Your task to perform on an android device: open app "Skype" (install if not already installed), go to login, and select forgot password Image 0: 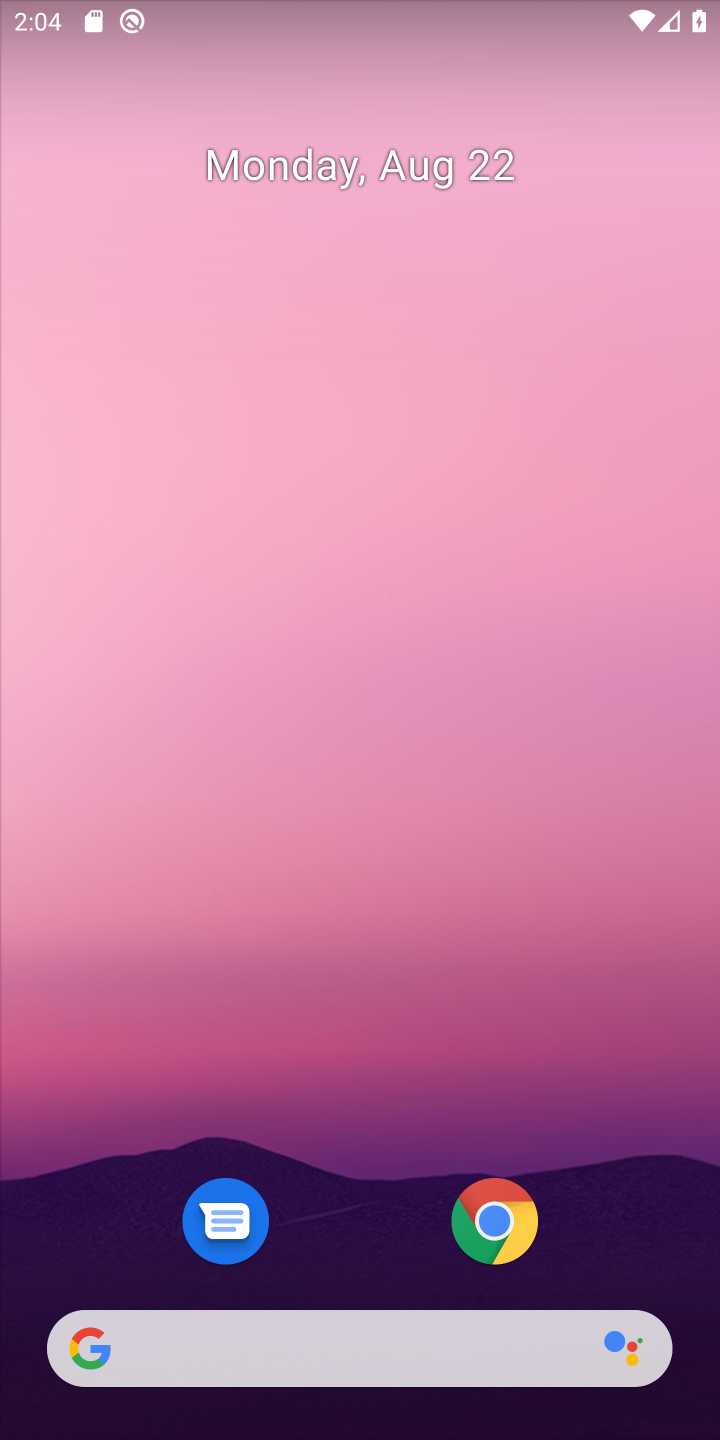
Step 0: press home button
Your task to perform on an android device: open app "Skype" (install if not already installed), go to login, and select forgot password Image 1: 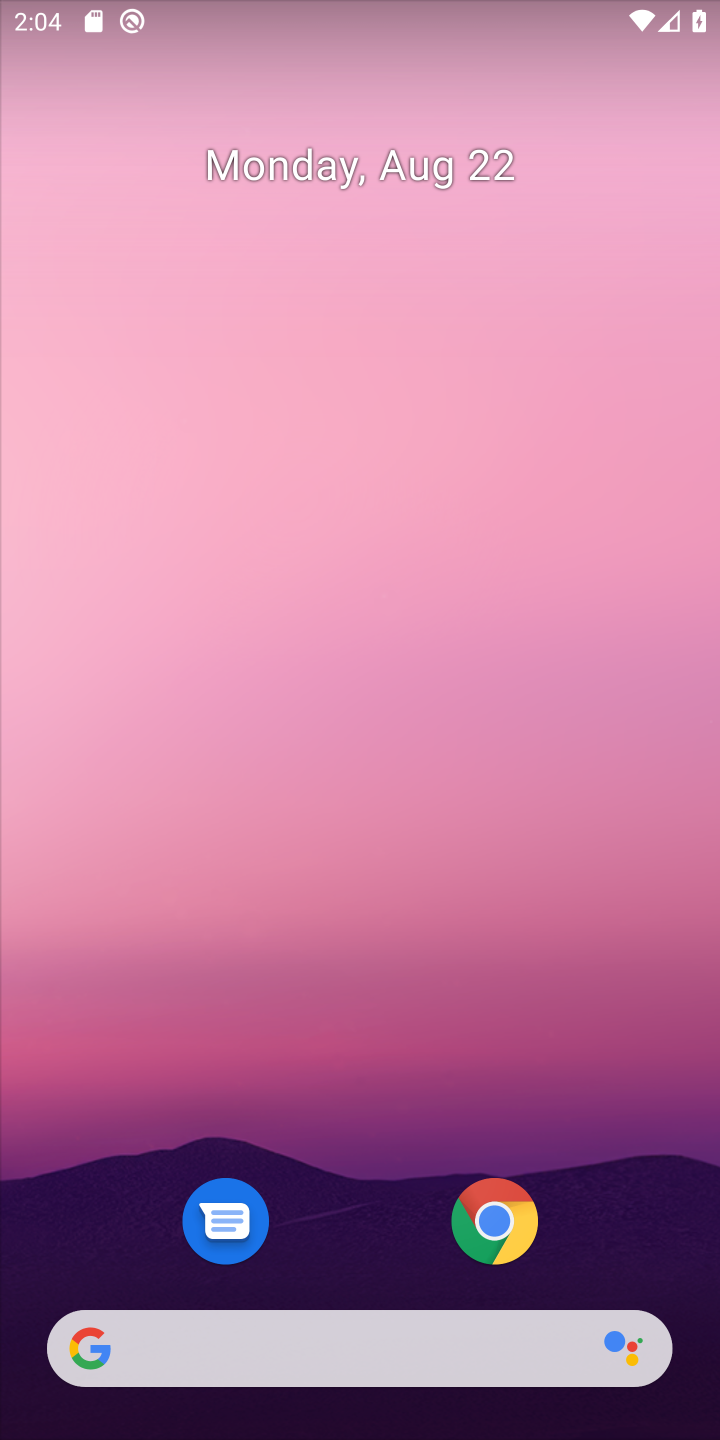
Step 1: drag from (378, 1259) to (400, 112)
Your task to perform on an android device: open app "Skype" (install if not already installed), go to login, and select forgot password Image 2: 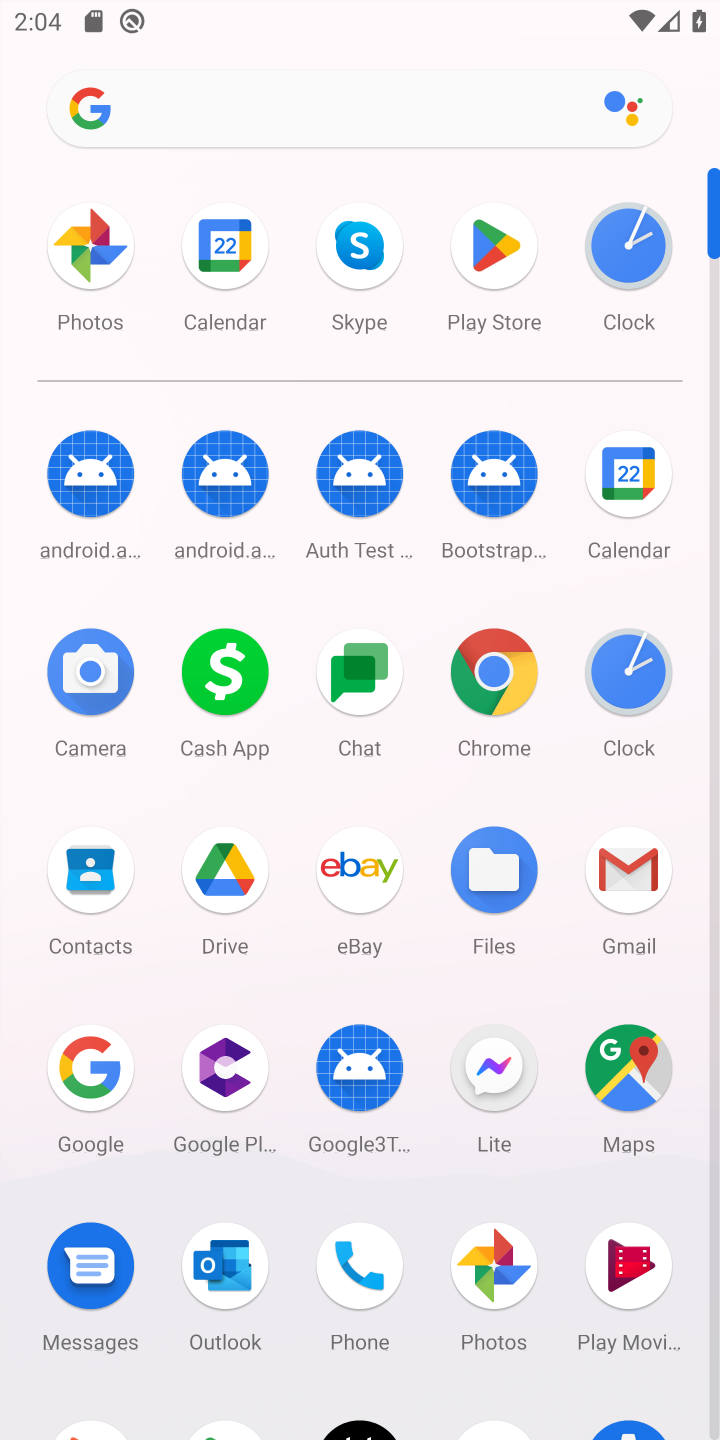
Step 2: click (492, 241)
Your task to perform on an android device: open app "Skype" (install if not already installed), go to login, and select forgot password Image 3: 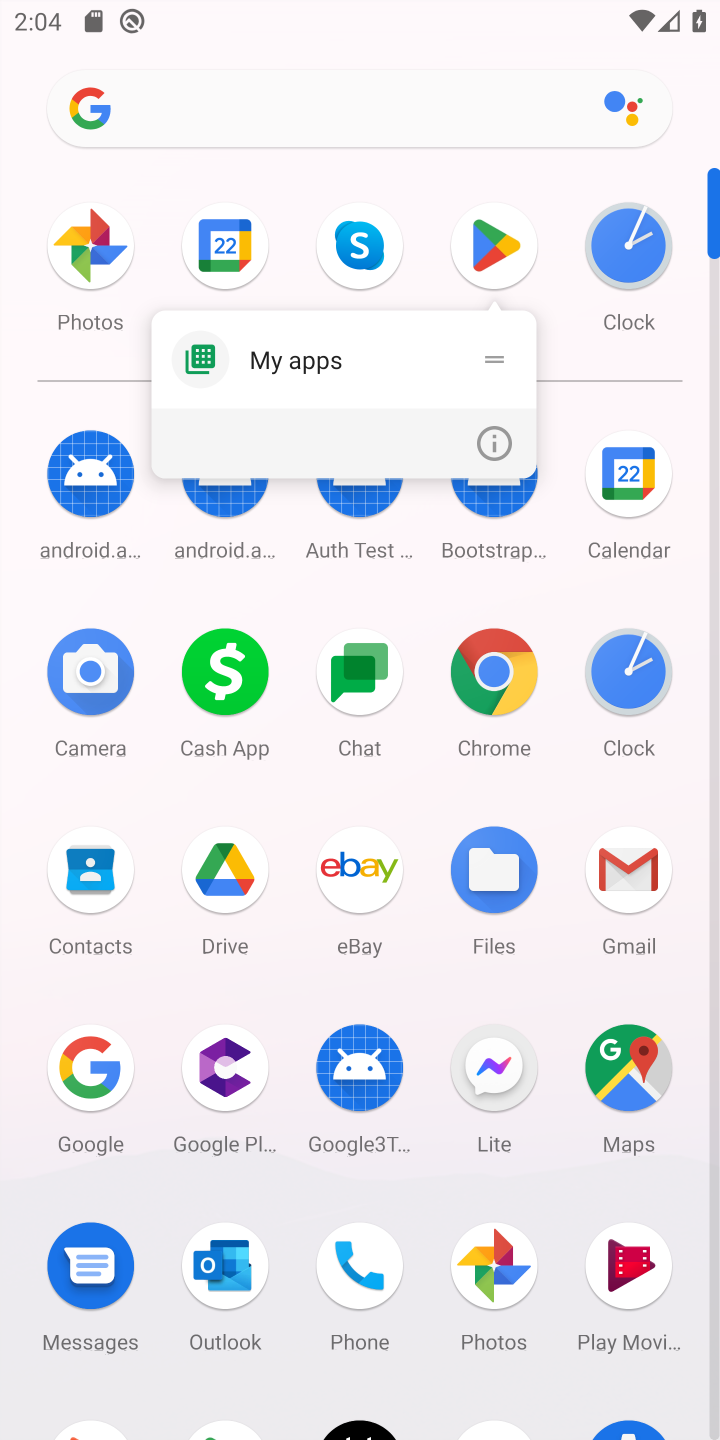
Step 3: click (488, 252)
Your task to perform on an android device: open app "Skype" (install if not already installed), go to login, and select forgot password Image 4: 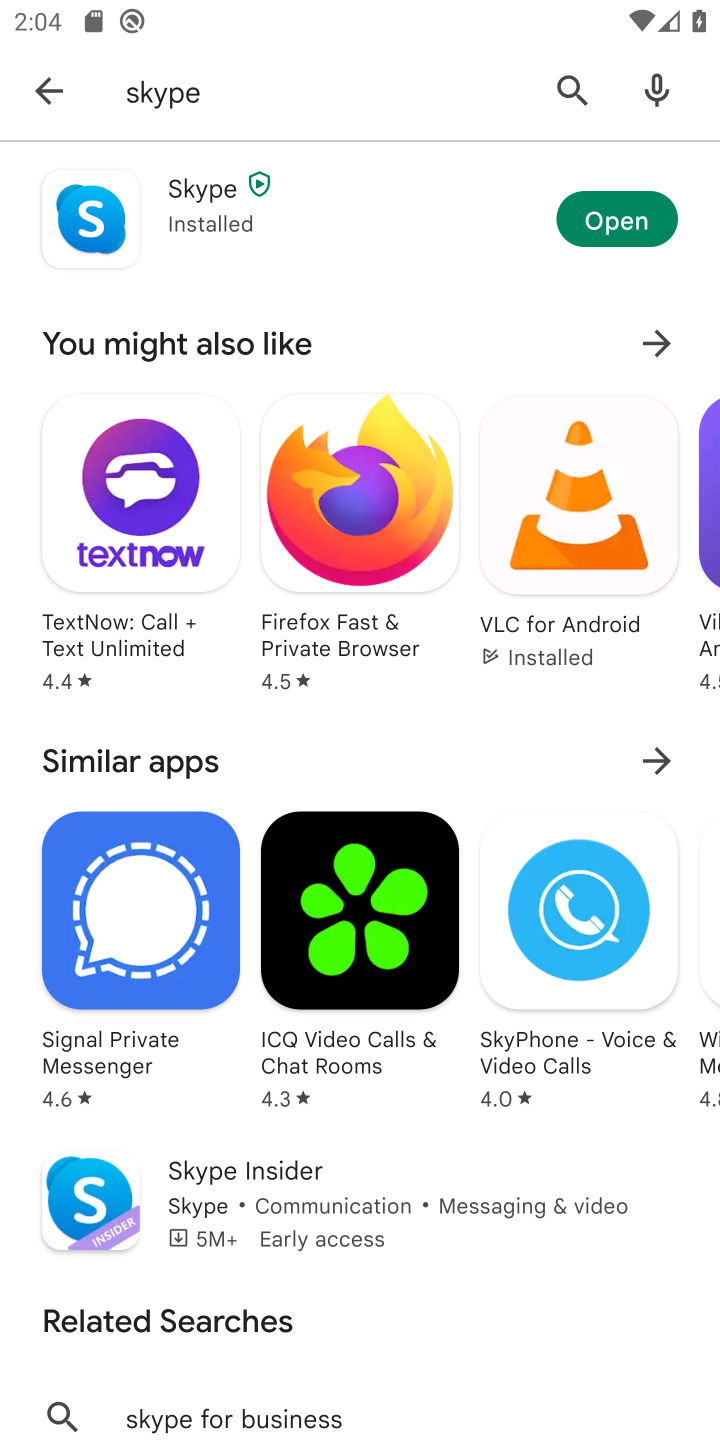
Step 4: click (560, 80)
Your task to perform on an android device: open app "Skype" (install if not already installed), go to login, and select forgot password Image 5: 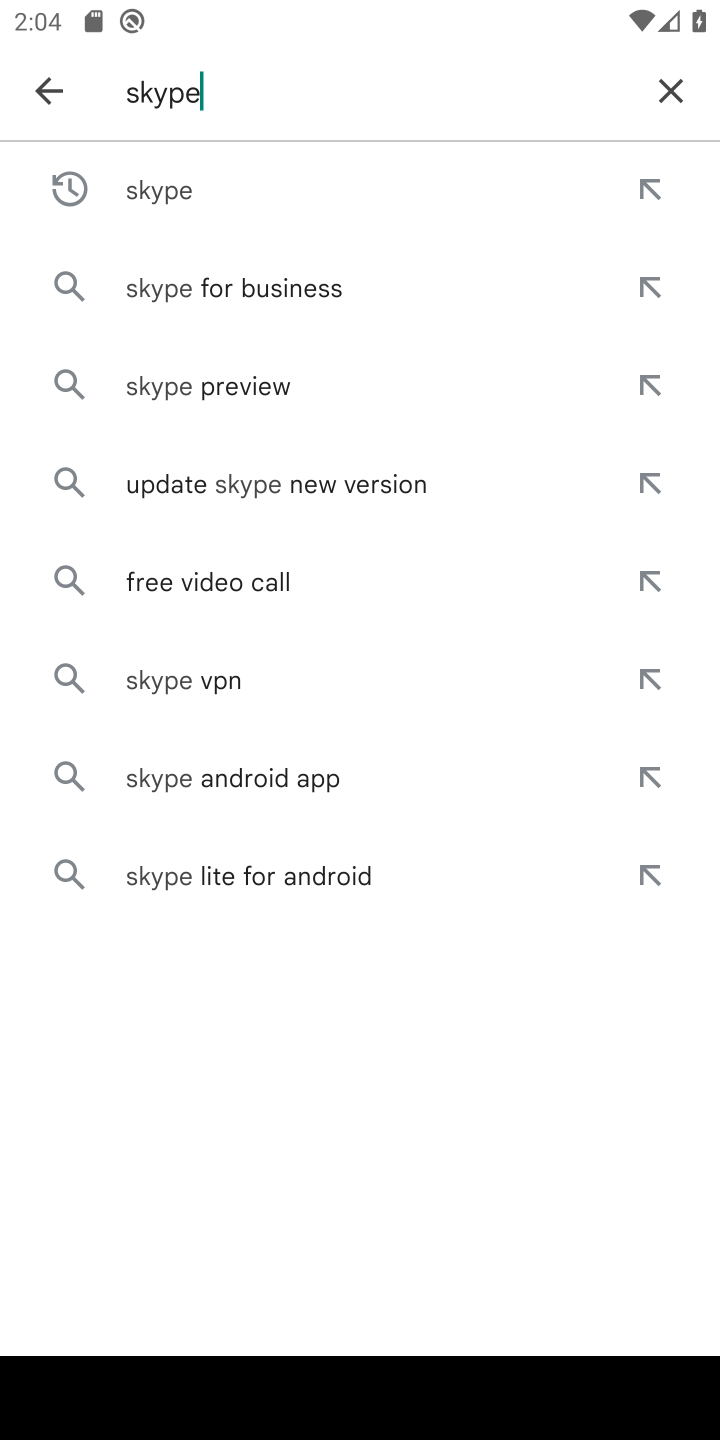
Step 5: click (189, 189)
Your task to perform on an android device: open app "Skype" (install if not already installed), go to login, and select forgot password Image 6: 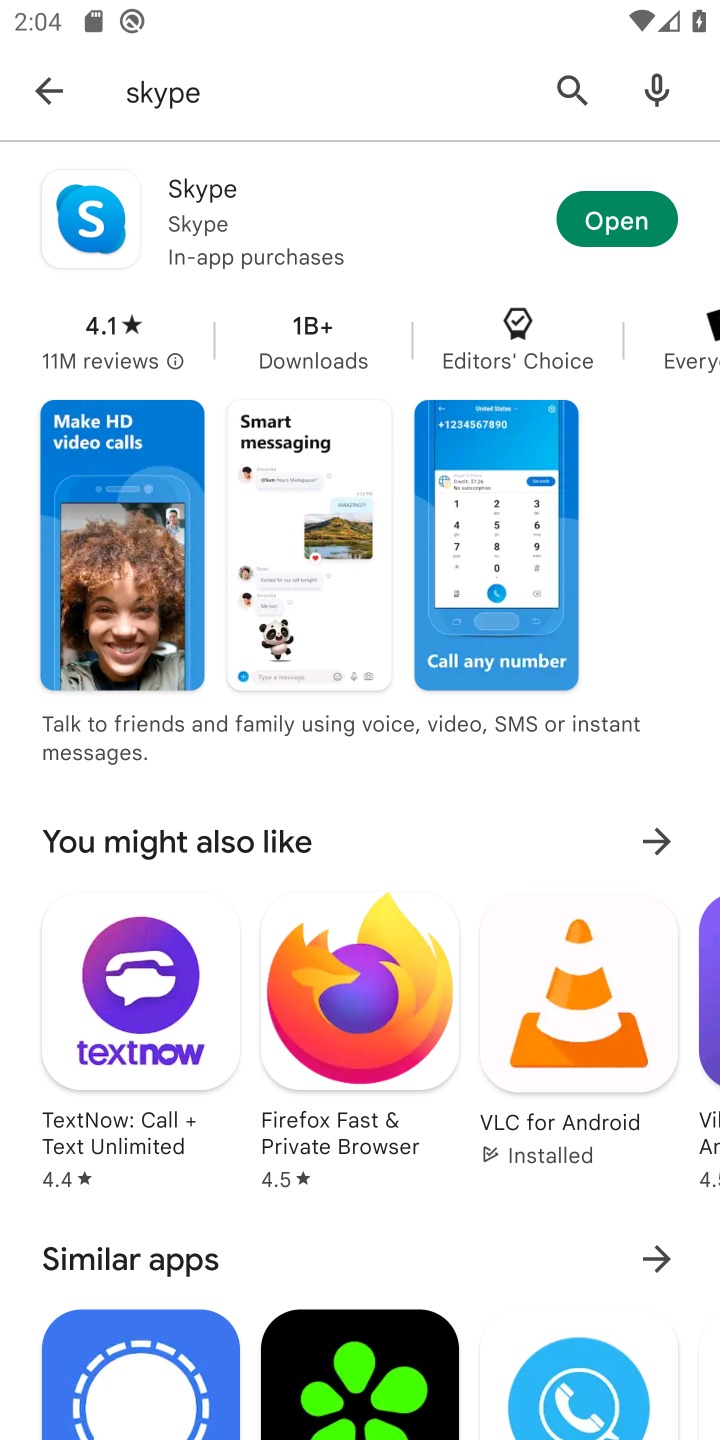
Step 6: click (613, 212)
Your task to perform on an android device: open app "Skype" (install if not already installed), go to login, and select forgot password Image 7: 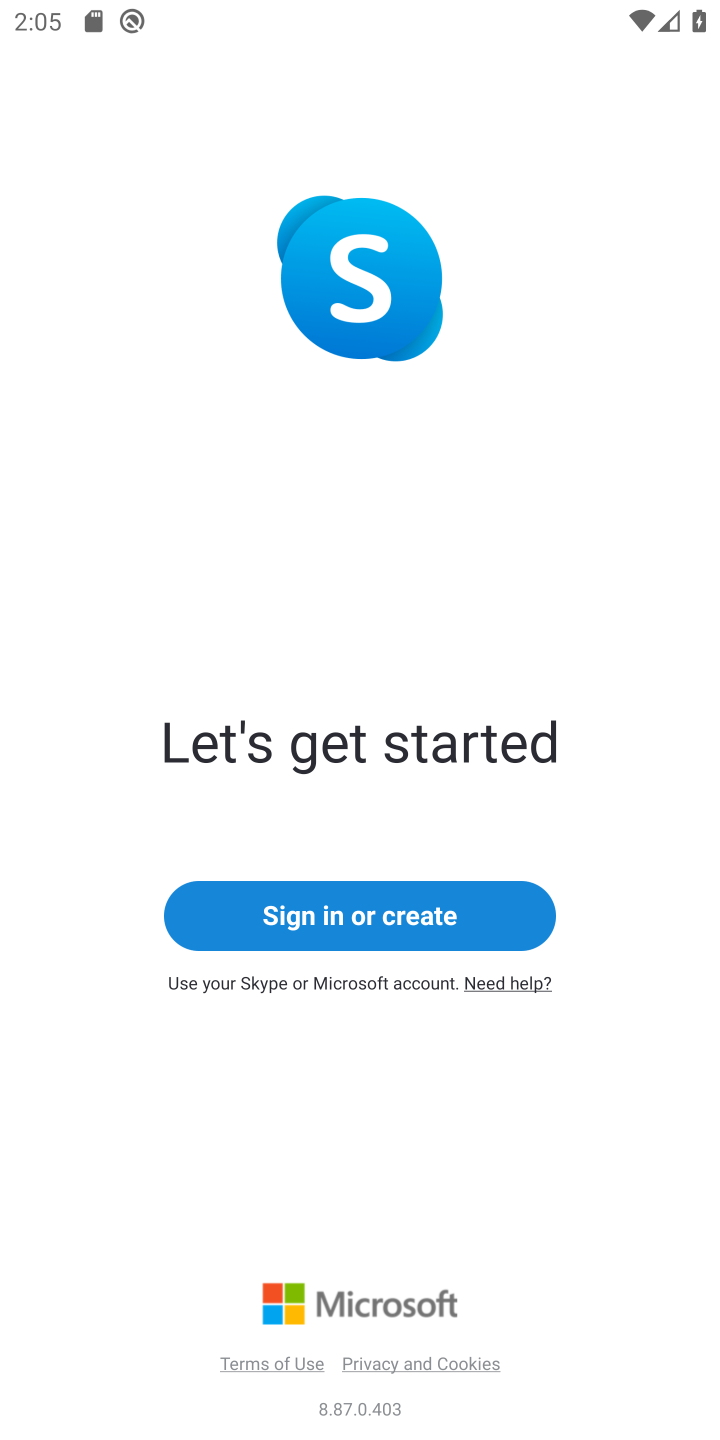
Step 7: click (382, 917)
Your task to perform on an android device: open app "Skype" (install if not already installed), go to login, and select forgot password Image 8: 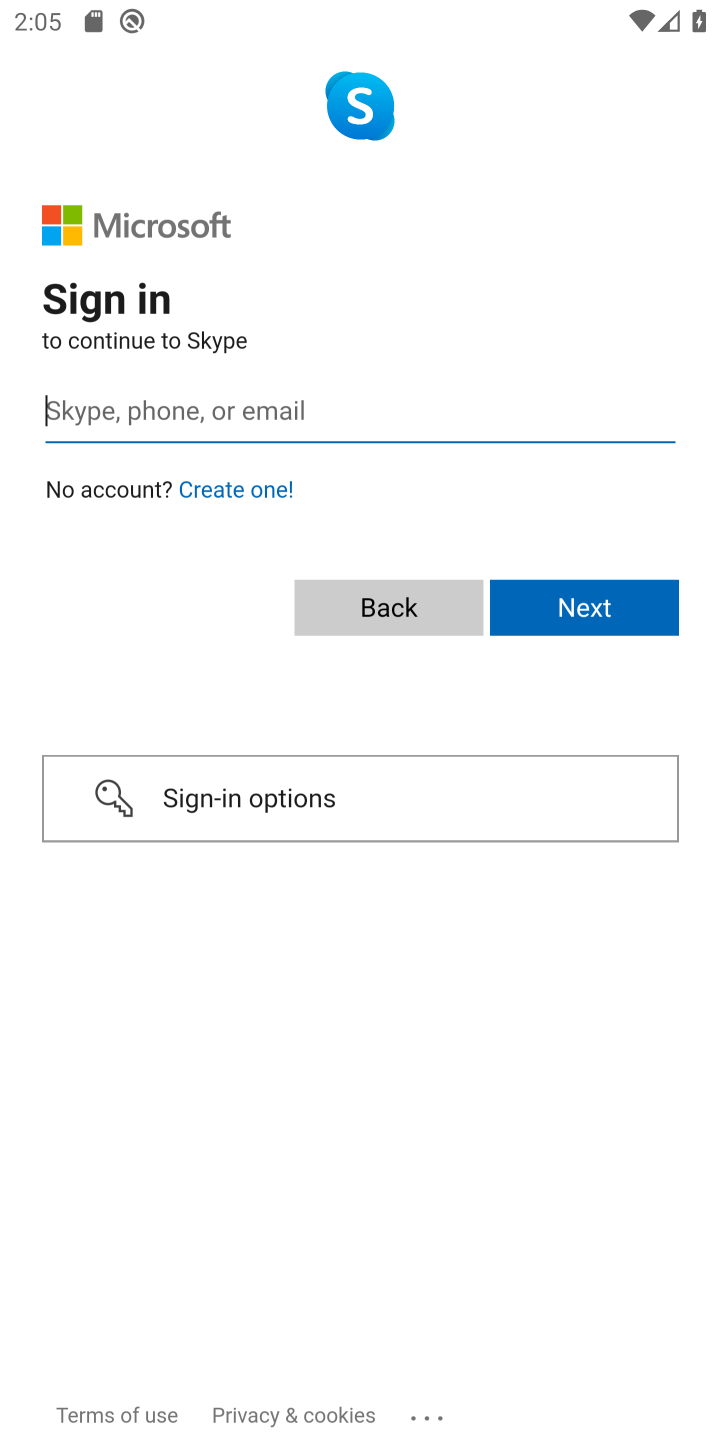
Step 8: task complete